Your task to perform on an android device: check data usage Image 0: 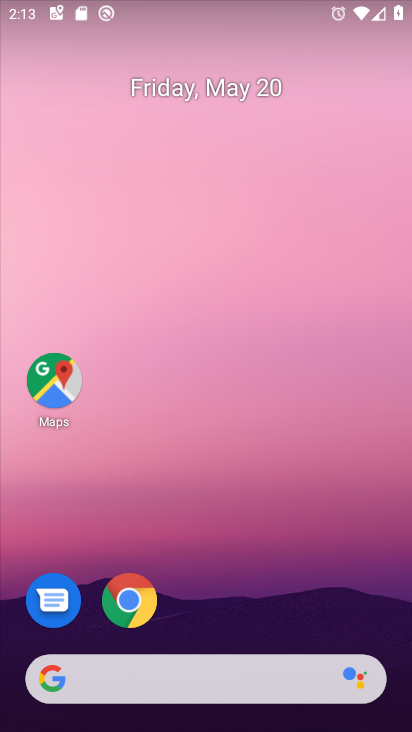
Step 0: drag from (194, 603) to (216, 200)
Your task to perform on an android device: check data usage Image 1: 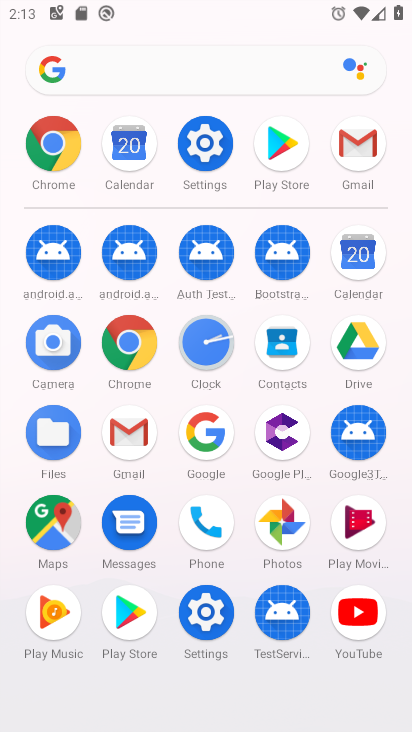
Step 1: click (198, 616)
Your task to perform on an android device: check data usage Image 2: 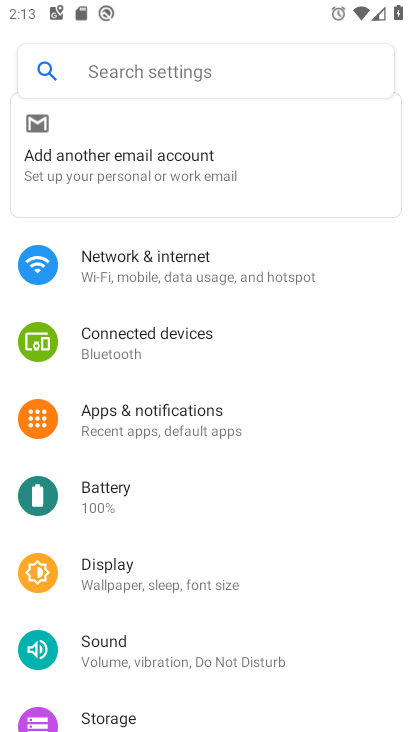
Step 2: drag from (204, 509) to (188, 552)
Your task to perform on an android device: check data usage Image 3: 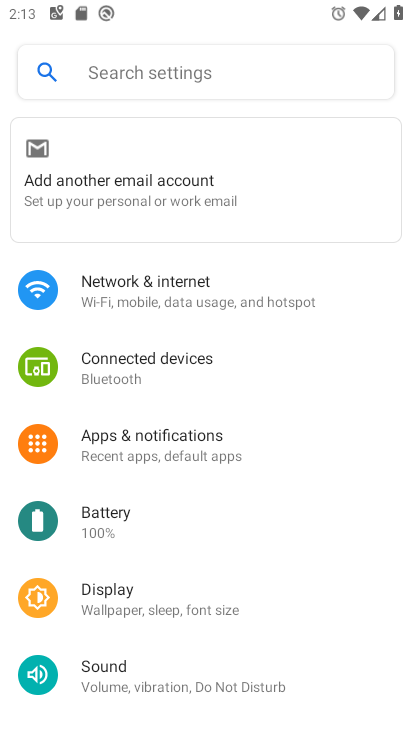
Step 3: click (203, 304)
Your task to perform on an android device: check data usage Image 4: 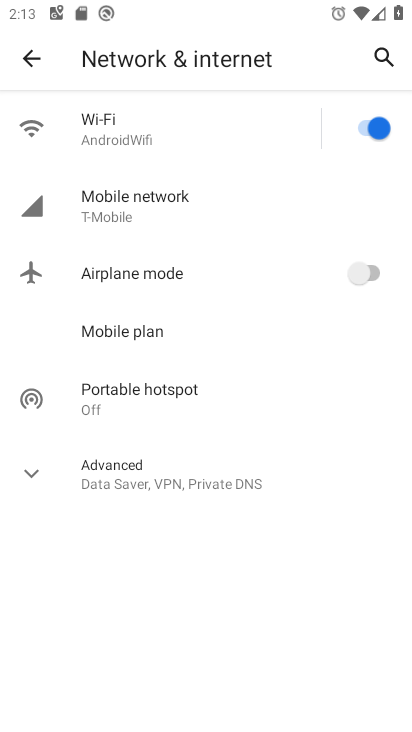
Step 4: click (135, 205)
Your task to perform on an android device: check data usage Image 5: 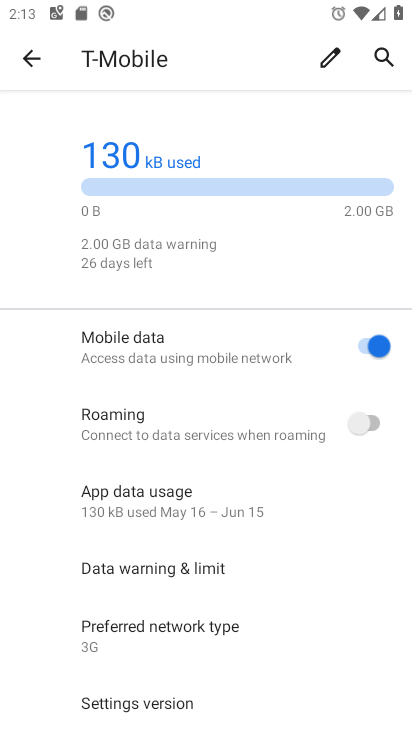
Step 5: click (165, 508)
Your task to perform on an android device: check data usage Image 6: 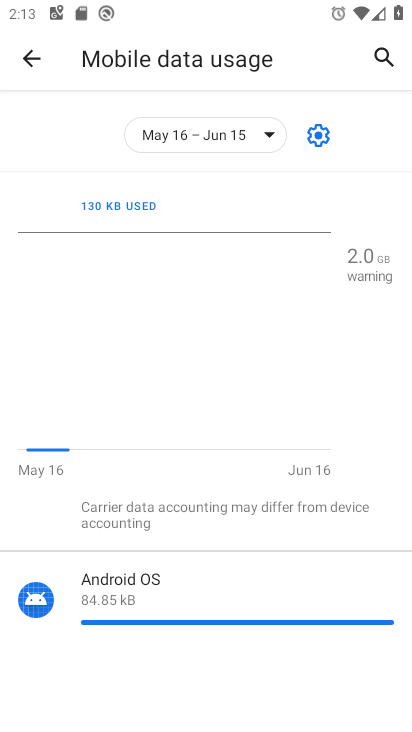
Step 6: task complete